Your task to perform on an android device: change notification settings in the gmail app Image 0: 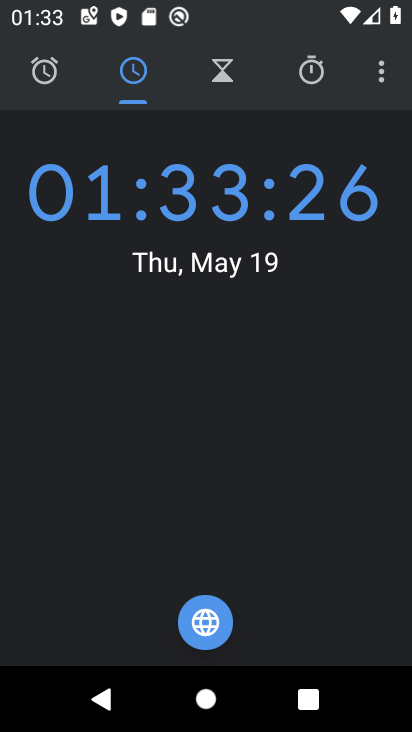
Step 0: press home button
Your task to perform on an android device: change notification settings in the gmail app Image 1: 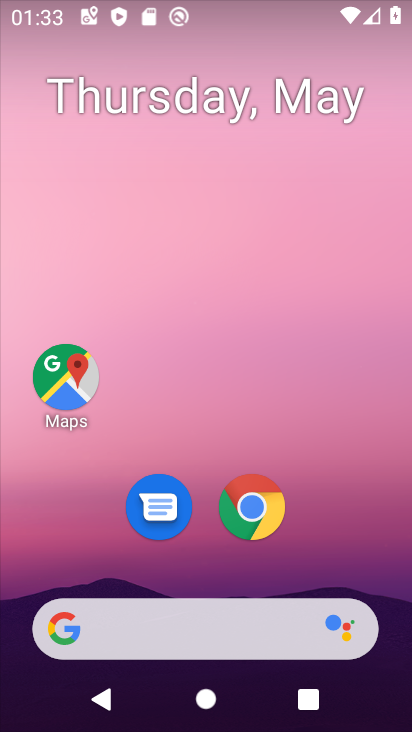
Step 1: drag from (338, 539) to (309, 226)
Your task to perform on an android device: change notification settings in the gmail app Image 2: 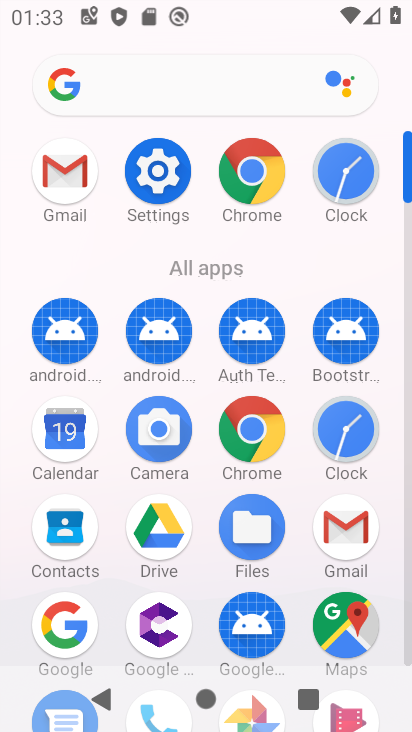
Step 2: click (359, 517)
Your task to perform on an android device: change notification settings in the gmail app Image 3: 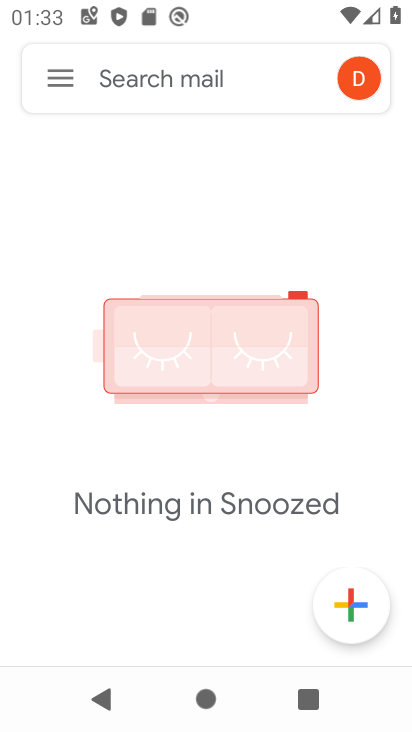
Step 3: click (48, 86)
Your task to perform on an android device: change notification settings in the gmail app Image 4: 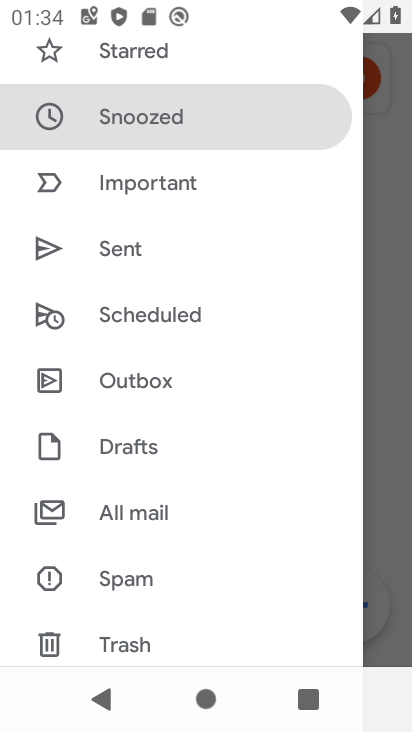
Step 4: drag from (175, 562) to (212, 213)
Your task to perform on an android device: change notification settings in the gmail app Image 5: 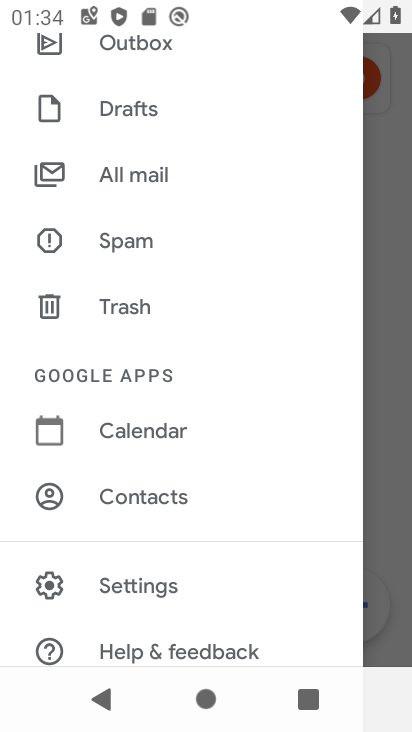
Step 5: click (159, 573)
Your task to perform on an android device: change notification settings in the gmail app Image 6: 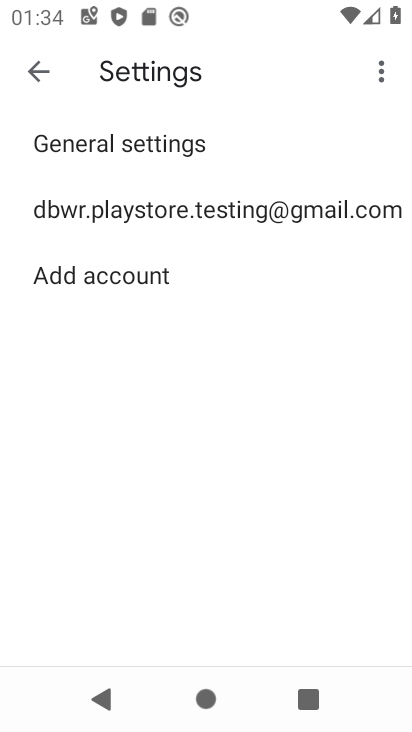
Step 6: click (167, 212)
Your task to perform on an android device: change notification settings in the gmail app Image 7: 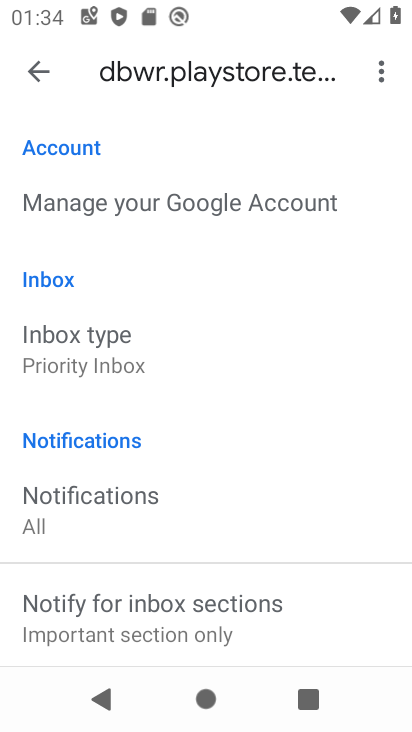
Step 7: drag from (303, 444) to (207, 489)
Your task to perform on an android device: change notification settings in the gmail app Image 8: 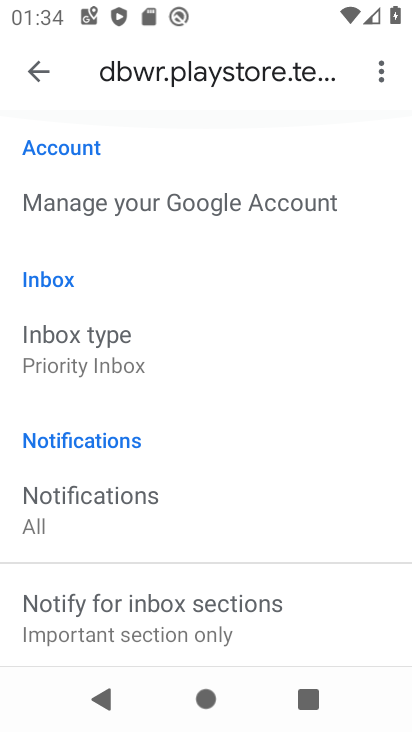
Step 8: click (124, 507)
Your task to perform on an android device: change notification settings in the gmail app Image 9: 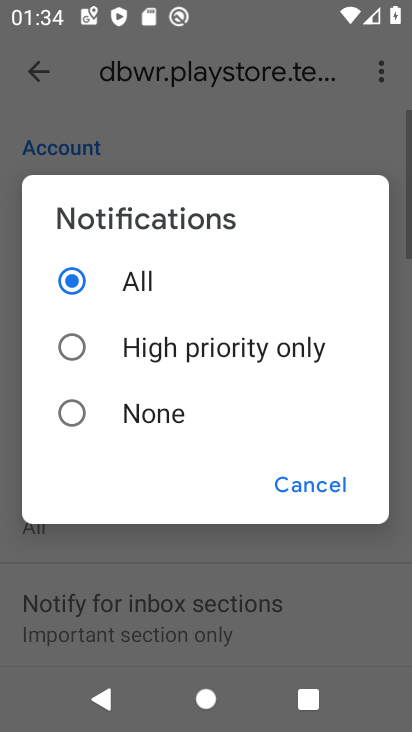
Step 9: click (165, 357)
Your task to perform on an android device: change notification settings in the gmail app Image 10: 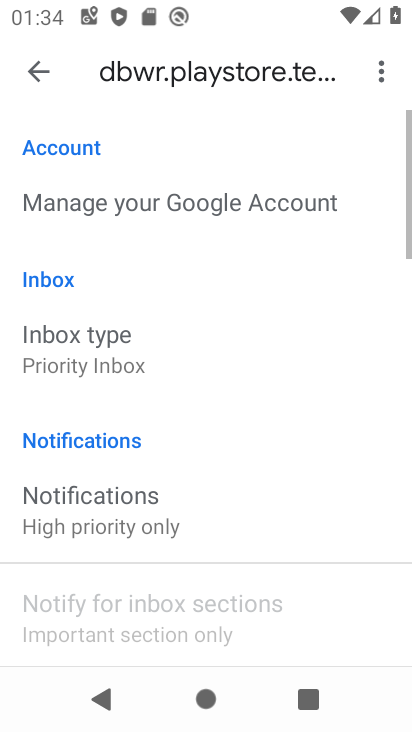
Step 10: task complete